Your task to perform on an android device: Show me productivity apps on the Play Store Image 0: 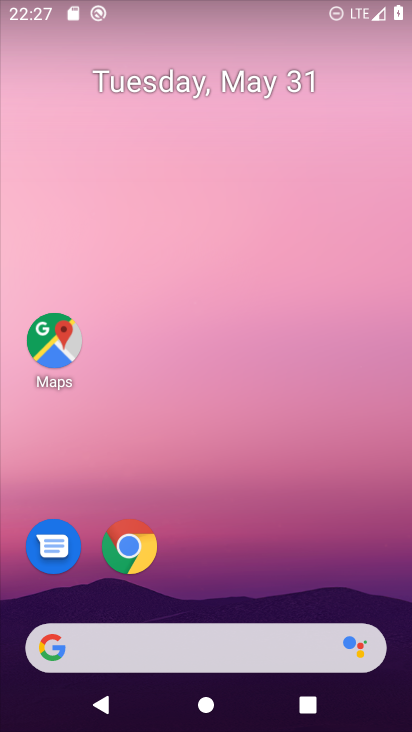
Step 0: drag from (394, 701) to (368, 140)
Your task to perform on an android device: Show me productivity apps on the Play Store Image 1: 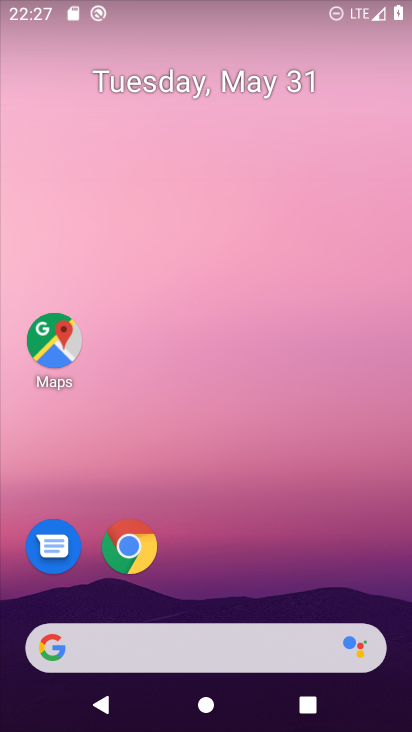
Step 1: drag from (394, 711) to (353, 99)
Your task to perform on an android device: Show me productivity apps on the Play Store Image 2: 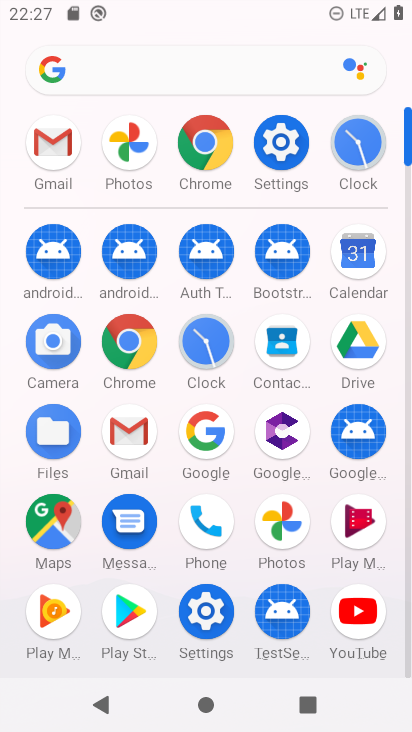
Step 2: click (130, 611)
Your task to perform on an android device: Show me productivity apps on the Play Store Image 3: 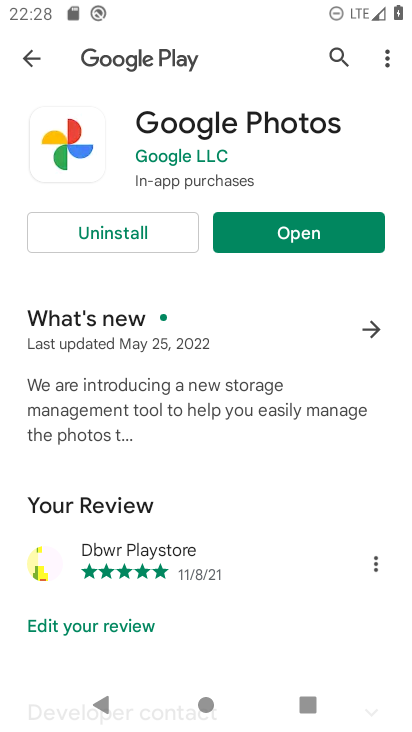
Step 3: click (281, 228)
Your task to perform on an android device: Show me productivity apps on the Play Store Image 4: 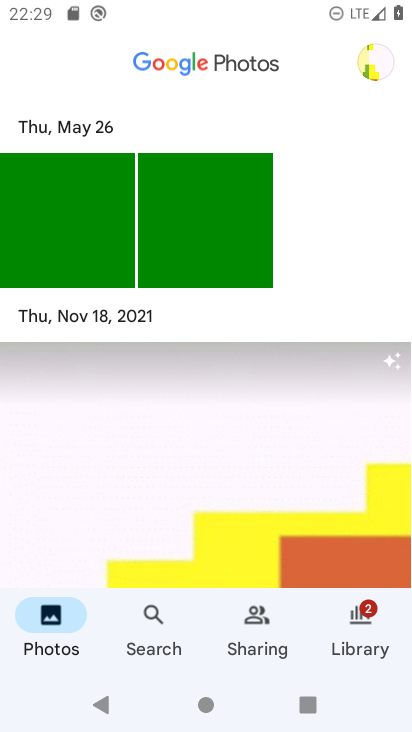
Step 4: press home button
Your task to perform on an android device: Show me productivity apps on the Play Store Image 5: 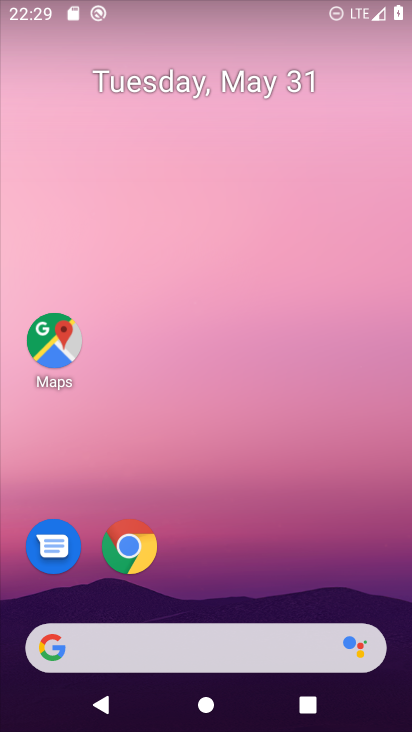
Step 5: drag from (372, 113) to (368, 77)
Your task to perform on an android device: Show me productivity apps on the Play Store Image 6: 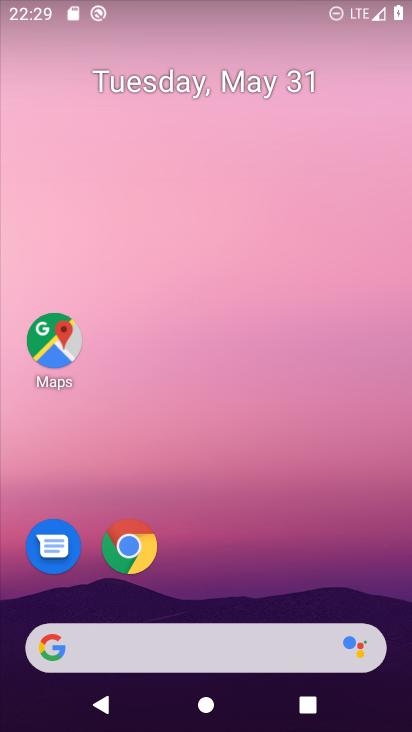
Step 6: drag from (394, 698) to (336, 75)
Your task to perform on an android device: Show me productivity apps on the Play Store Image 7: 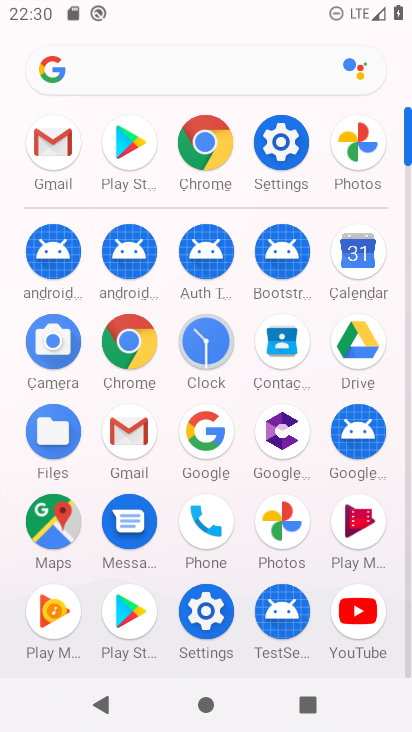
Step 7: click (123, 621)
Your task to perform on an android device: Show me productivity apps on the Play Store Image 8: 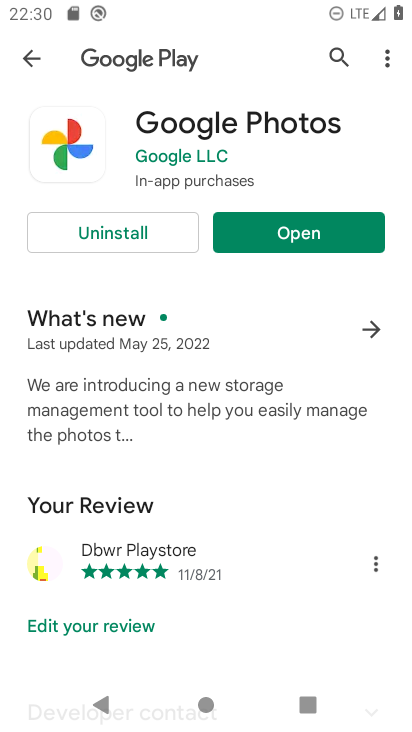
Step 8: click (26, 58)
Your task to perform on an android device: Show me productivity apps on the Play Store Image 9: 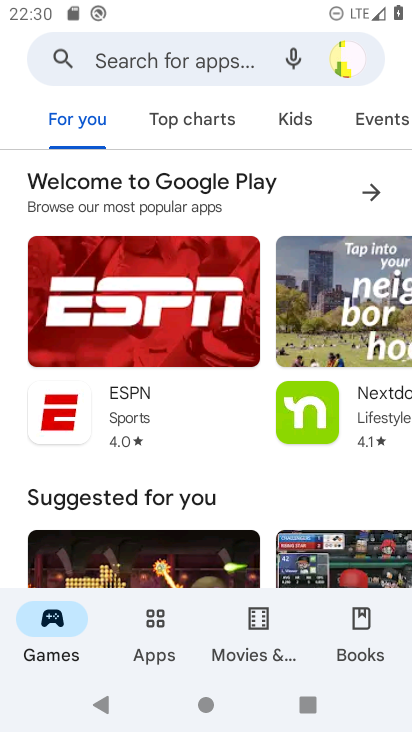
Step 9: click (204, 51)
Your task to perform on an android device: Show me productivity apps on the Play Store Image 10: 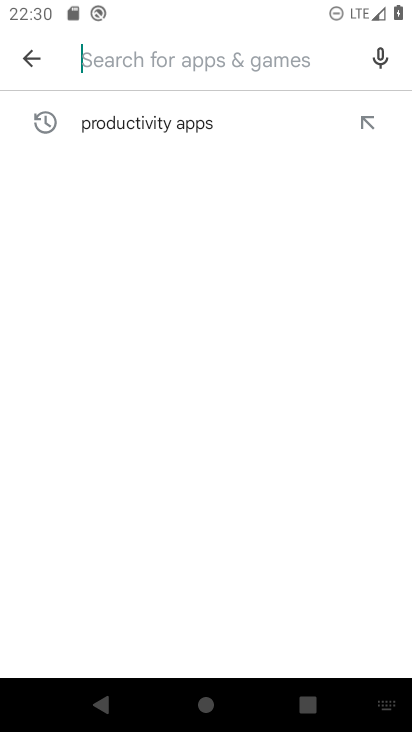
Step 10: click (144, 126)
Your task to perform on an android device: Show me productivity apps on the Play Store Image 11: 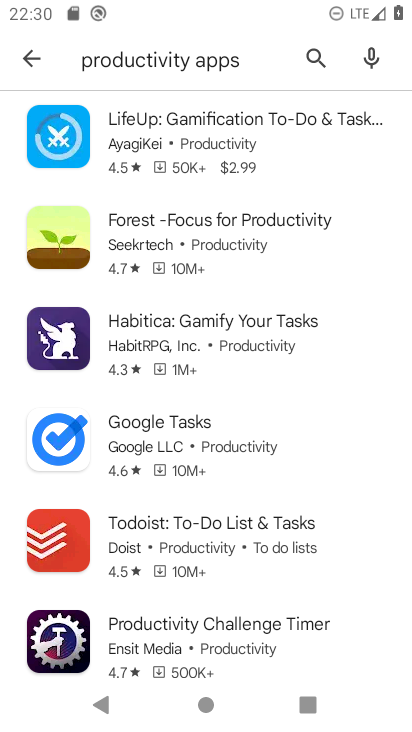
Step 11: task complete